Your task to perform on an android device: turn off smart reply in the gmail app Image 0: 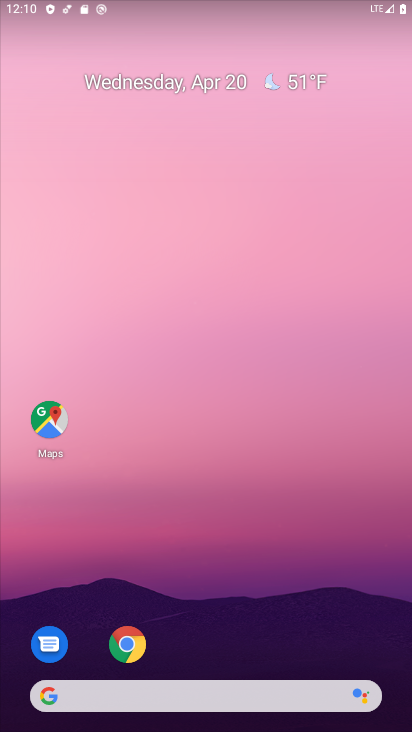
Step 0: drag from (214, 724) to (213, 84)
Your task to perform on an android device: turn off smart reply in the gmail app Image 1: 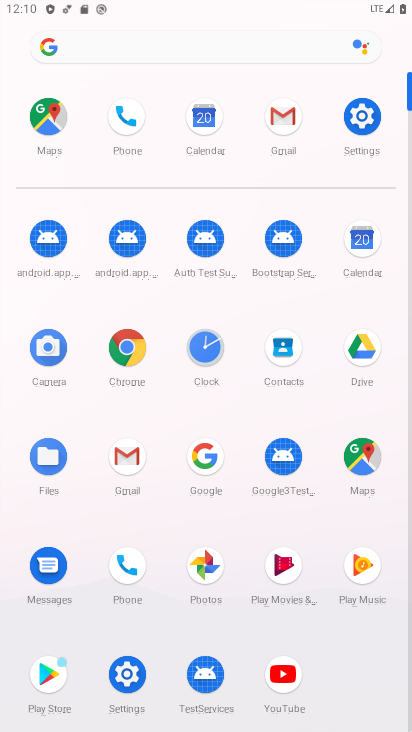
Step 1: click (133, 453)
Your task to perform on an android device: turn off smart reply in the gmail app Image 2: 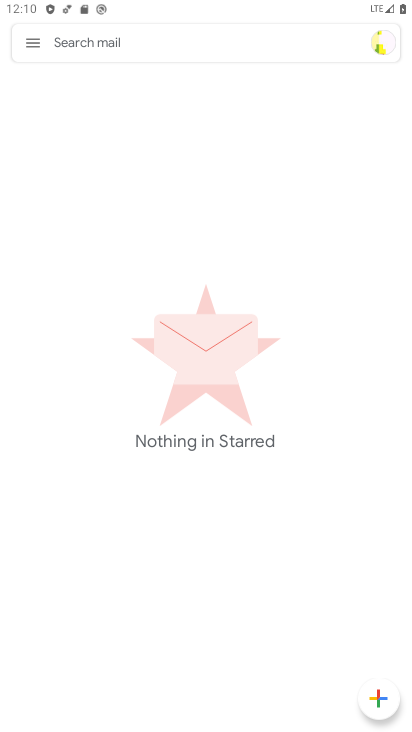
Step 2: click (133, 454)
Your task to perform on an android device: turn off smart reply in the gmail app Image 3: 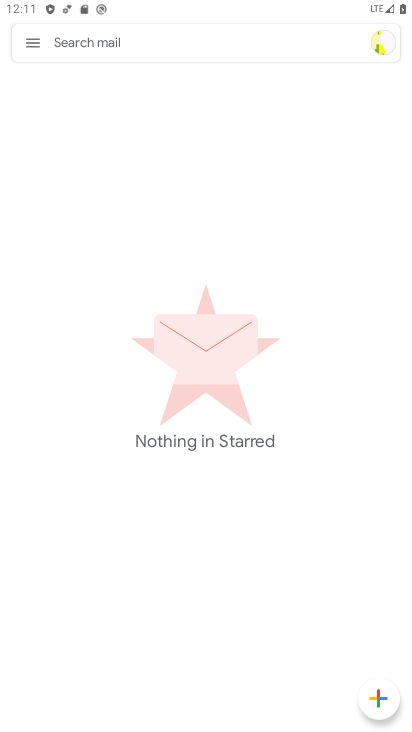
Step 3: click (35, 44)
Your task to perform on an android device: turn off smart reply in the gmail app Image 4: 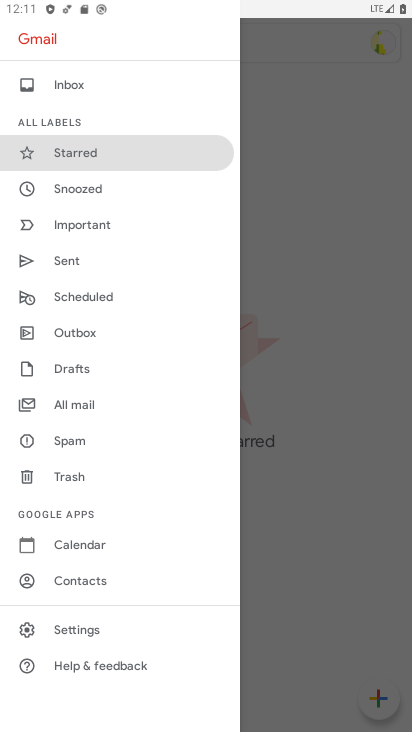
Step 4: click (90, 627)
Your task to perform on an android device: turn off smart reply in the gmail app Image 5: 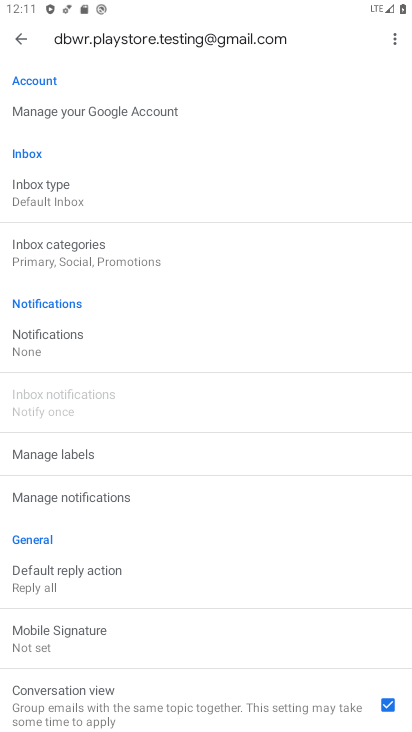
Step 5: task complete